Your task to perform on an android device: Open accessibility settings Image 0: 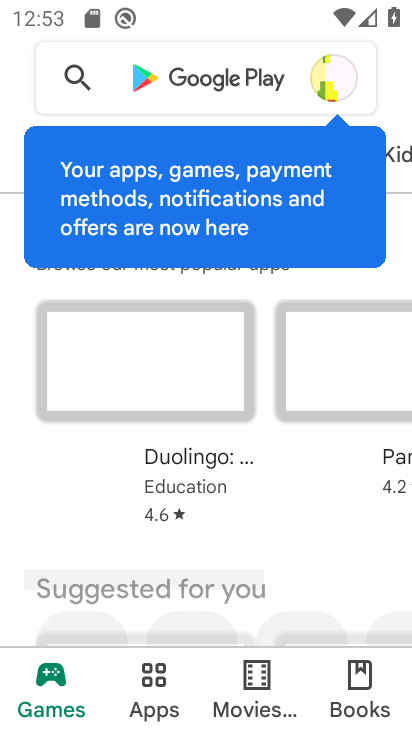
Step 0: press home button
Your task to perform on an android device: Open accessibility settings Image 1: 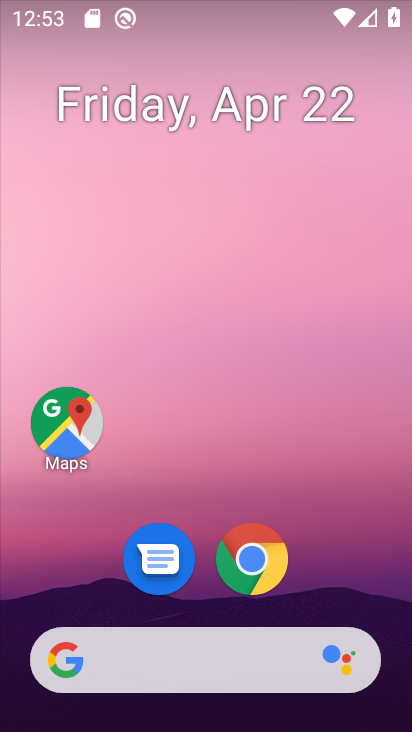
Step 1: drag from (352, 585) to (268, 0)
Your task to perform on an android device: Open accessibility settings Image 2: 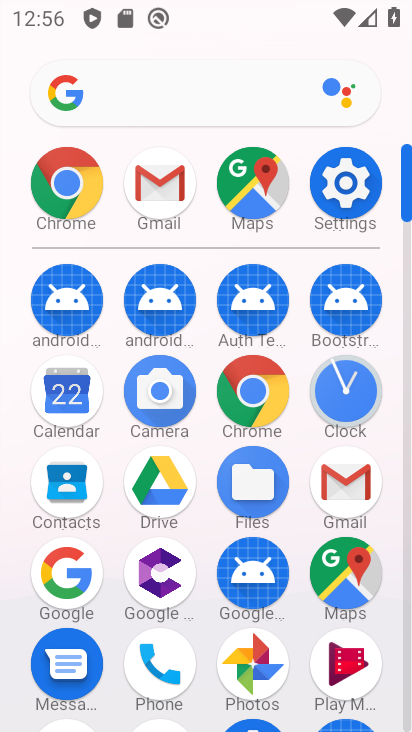
Step 2: click (343, 172)
Your task to perform on an android device: Open accessibility settings Image 3: 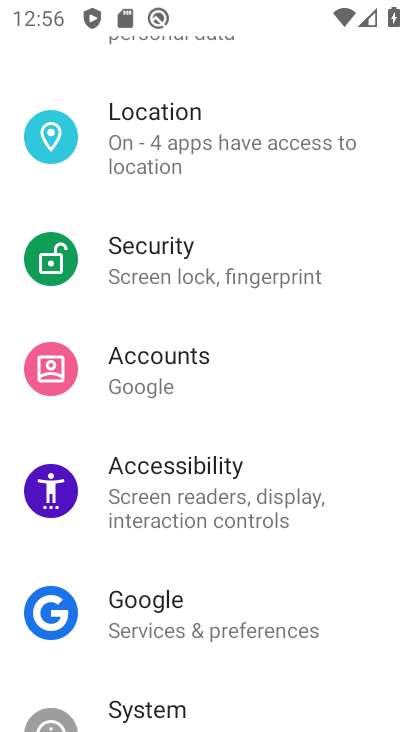
Step 3: click (211, 471)
Your task to perform on an android device: Open accessibility settings Image 4: 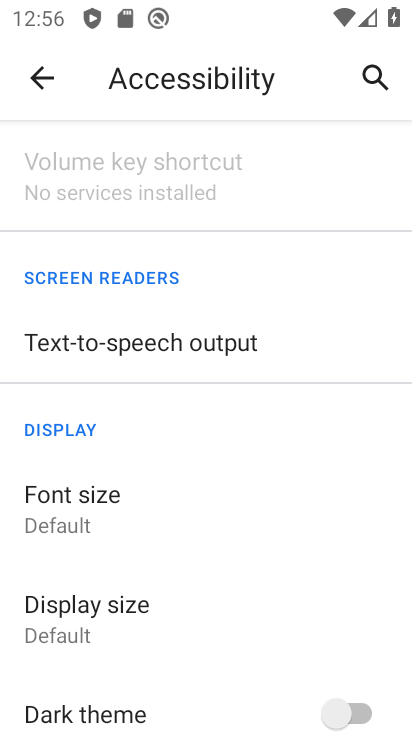
Step 4: task complete